Your task to perform on an android device: Open Yahoo.com Image 0: 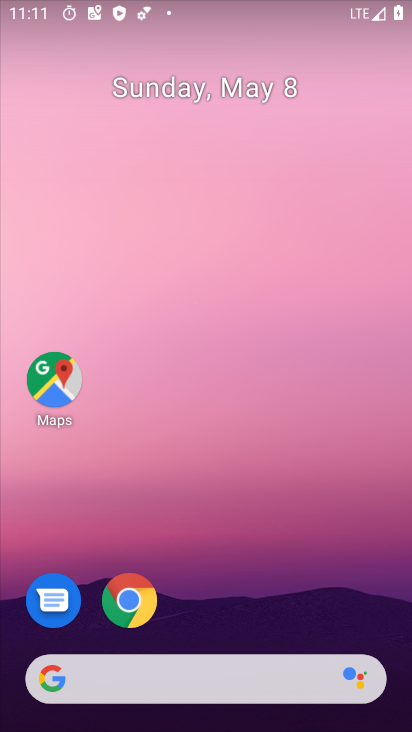
Step 0: click (139, 602)
Your task to perform on an android device: Open Yahoo.com Image 1: 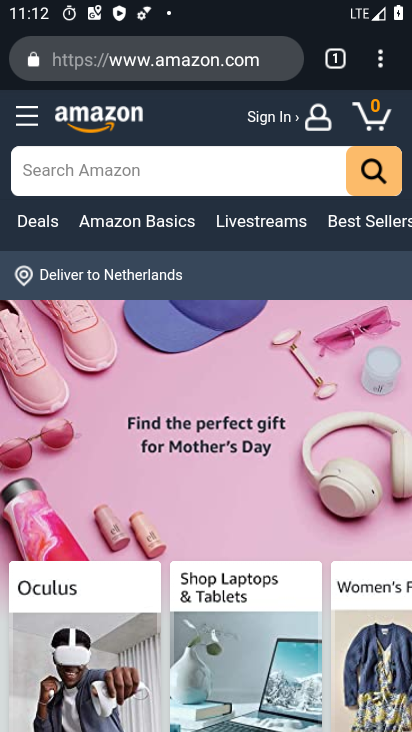
Step 1: press back button
Your task to perform on an android device: Open Yahoo.com Image 2: 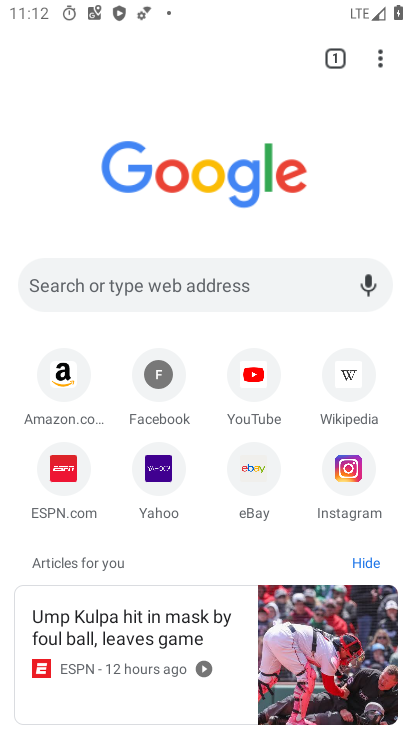
Step 2: click (155, 467)
Your task to perform on an android device: Open Yahoo.com Image 3: 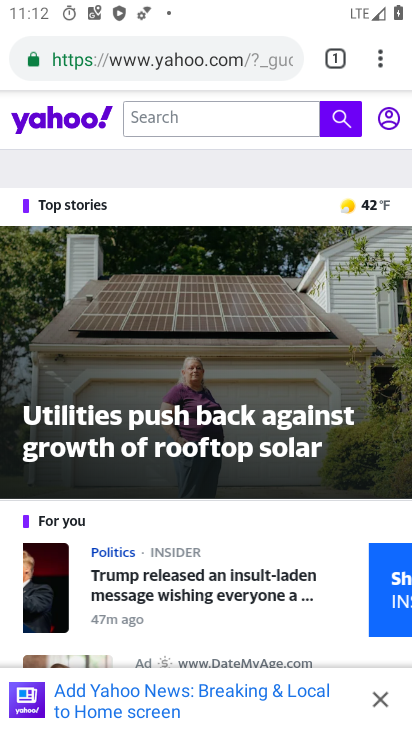
Step 3: task complete